Your task to perform on an android device: open app "Google Maps" (install if not already installed) Image 0: 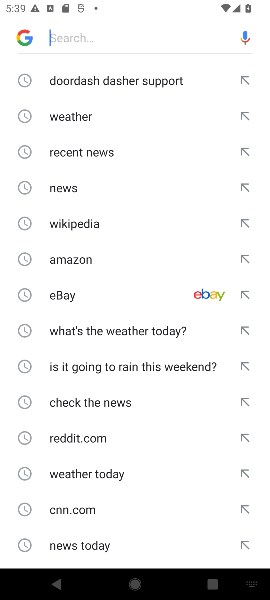
Step 0: press home button
Your task to perform on an android device: open app "Google Maps" (install if not already installed) Image 1: 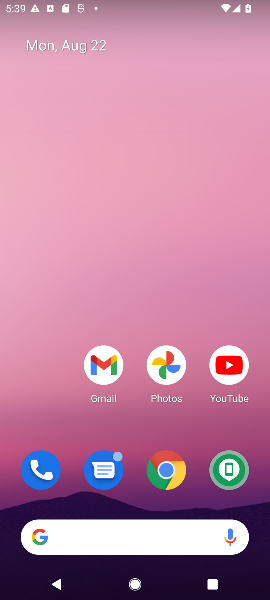
Step 1: drag from (139, 485) to (188, 151)
Your task to perform on an android device: open app "Google Maps" (install if not already installed) Image 2: 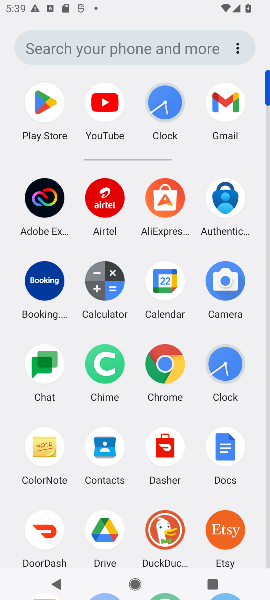
Step 2: click (39, 103)
Your task to perform on an android device: open app "Google Maps" (install if not already installed) Image 3: 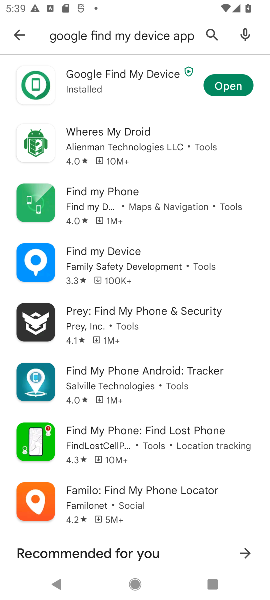
Step 3: click (18, 27)
Your task to perform on an android device: open app "Google Maps" (install if not already installed) Image 4: 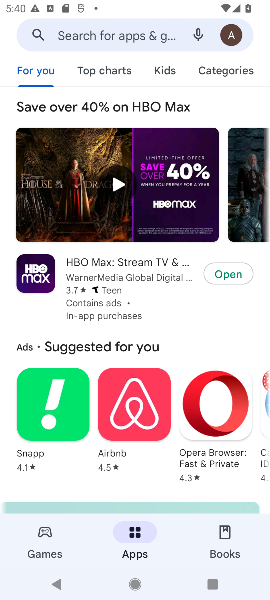
Step 4: click (129, 36)
Your task to perform on an android device: open app "Google Maps" (install if not already installed) Image 5: 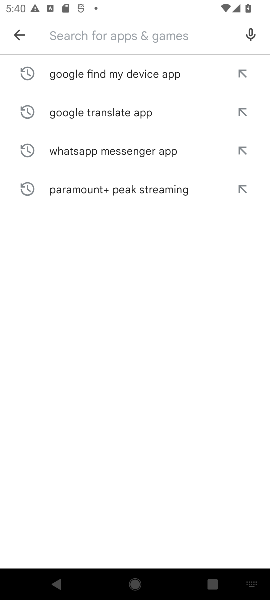
Step 5: type "Google Maps "
Your task to perform on an android device: open app "Google Maps" (install if not already installed) Image 6: 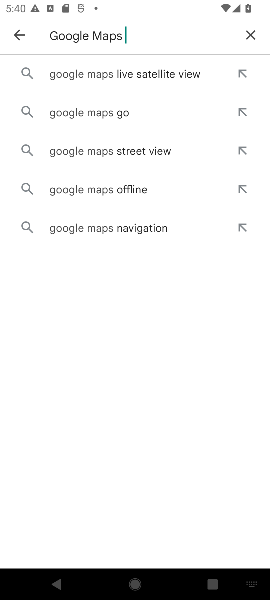
Step 6: click (108, 107)
Your task to perform on an android device: open app "Google Maps" (install if not already installed) Image 7: 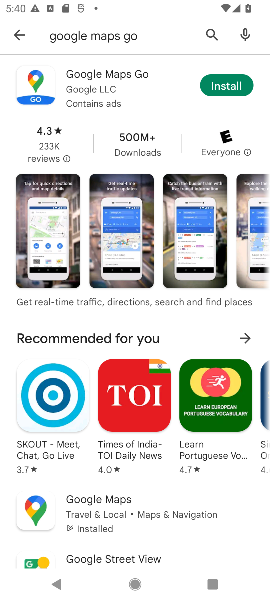
Step 7: click (214, 71)
Your task to perform on an android device: open app "Google Maps" (install if not already installed) Image 8: 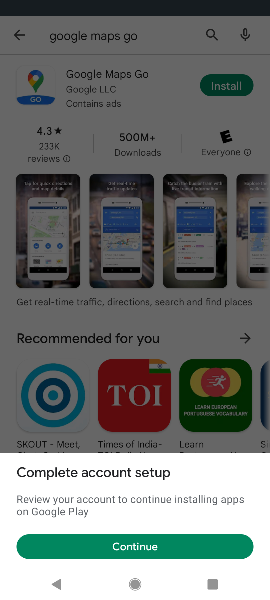
Step 8: task complete